Your task to perform on an android device: add a contact in the contacts app Image 0: 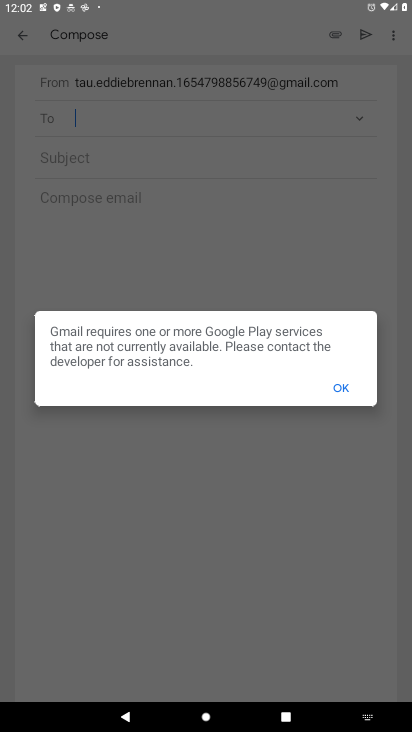
Step 0: press home button
Your task to perform on an android device: add a contact in the contacts app Image 1: 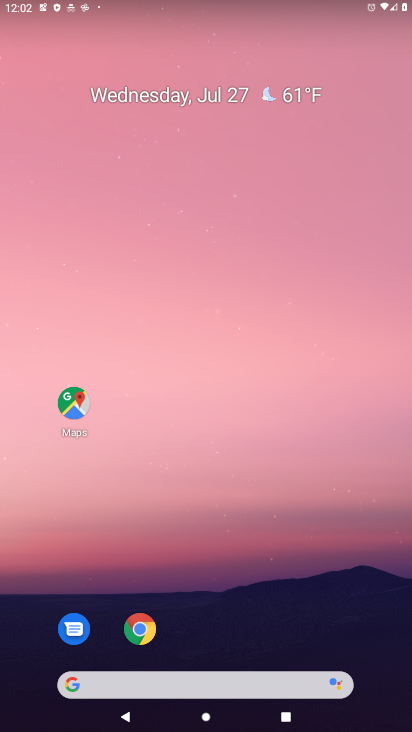
Step 1: drag from (238, 655) to (247, 96)
Your task to perform on an android device: add a contact in the contacts app Image 2: 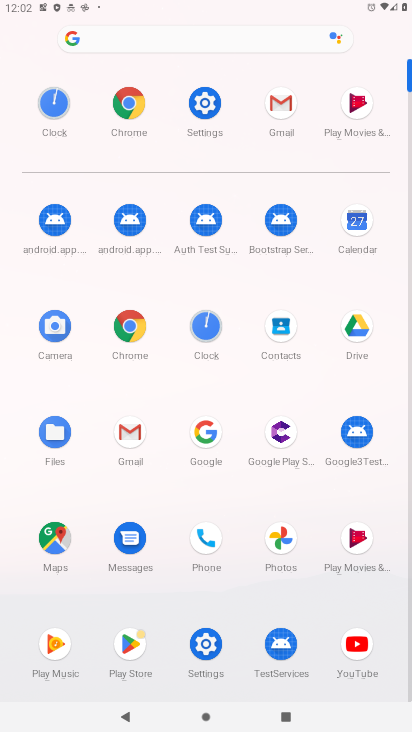
Step 2: click (278, 330)
Your task to perform on an android device: add a contact in the contacts app Image 3: 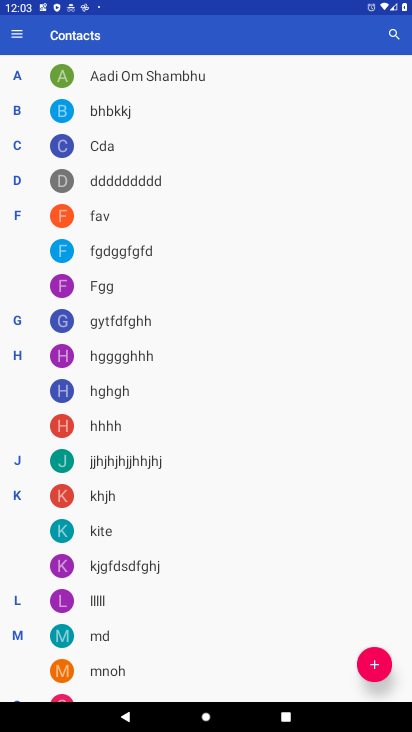
Step 3: click (380, 666)
Your task to perform on an android device: add a contact in the contacts app Image 4: 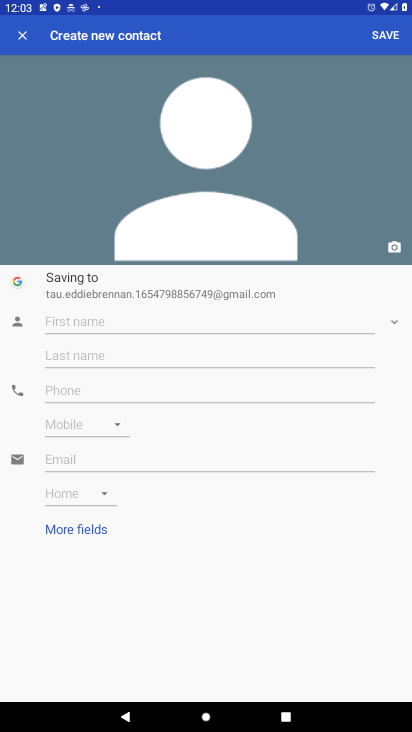
Step 4: click (211, 324)
Your task to perform on an android device: add a contact in the contacts app Image 5: 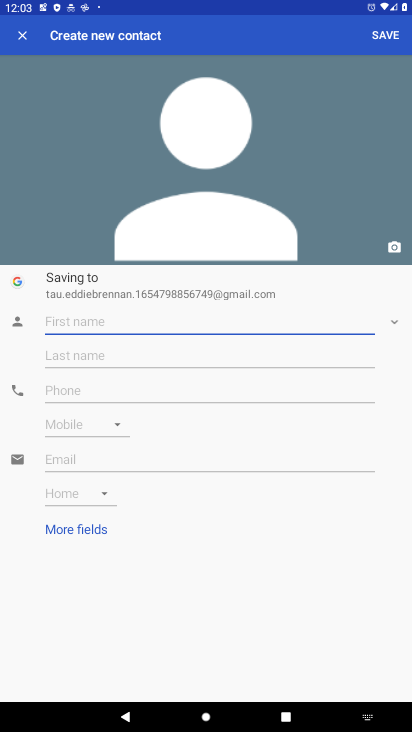
Step 5: type "aadada"
Your task to perform on an android device: add a contact in the contacts app Image 6: 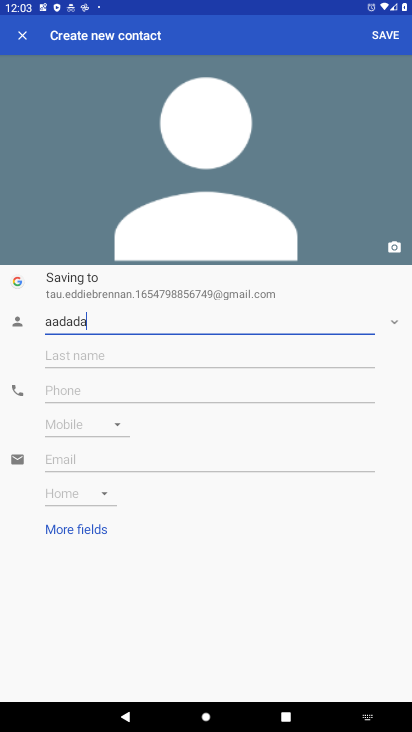
Step 6: click (223, 359)
Your task to perform on an android device: add a contact in the contacts app Image 7: 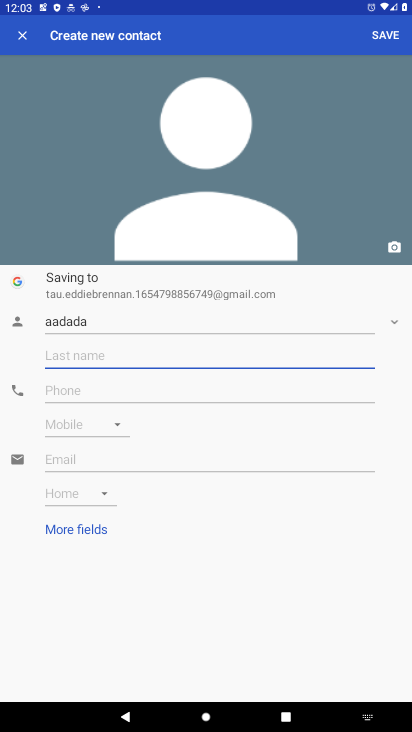
Step 7: click (186, 392)
Your task to perform on an android device: add a contact in the contacts app Image 8: 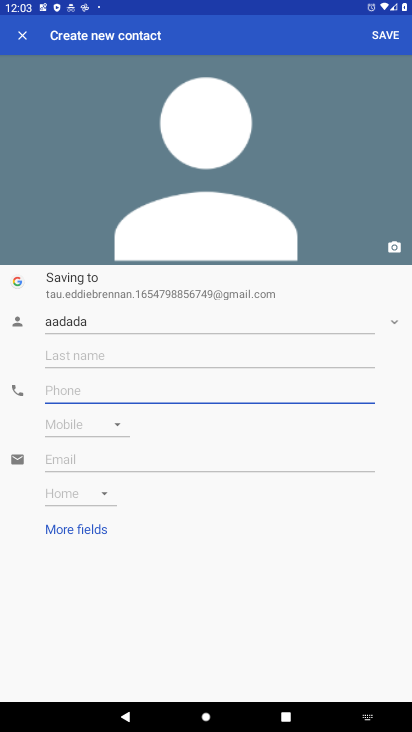
Step 8: type "24556453"
Your task to perform on an android device: add a contact in the contacts app Image 9: 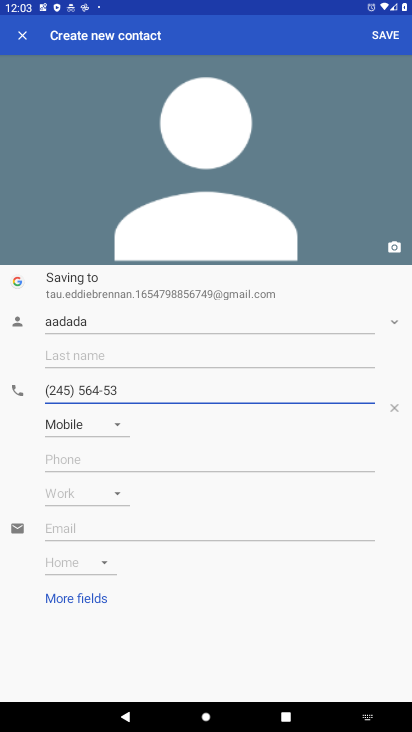
Step 9: click (383, 35)
Your task to perform on an android device: add a contact in the contacts app Image 10: 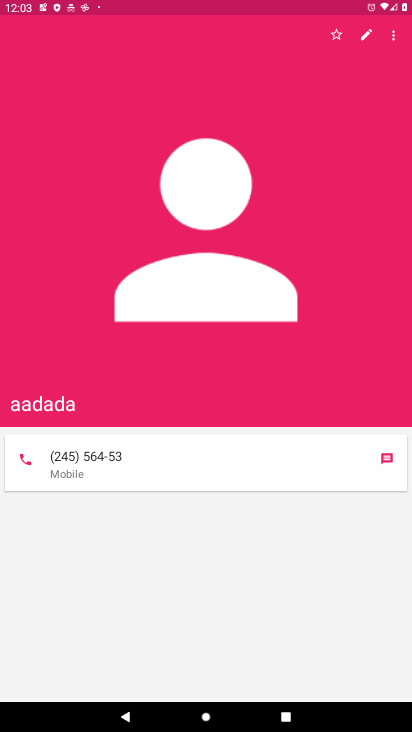
Step 10: task complete